Your task to perform on an android device: manage bookmarks in the chrome app Image 0: 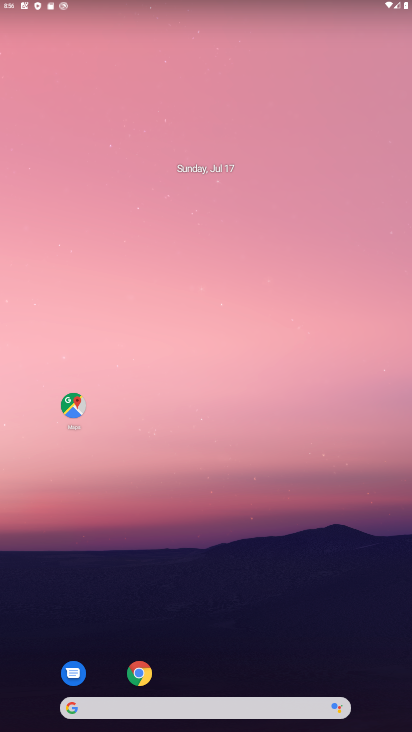
Step 0: drag from (272, 592) to (224, 96)
Your task to perform on an android device: manage bookmarks in the chrome app Image 1: 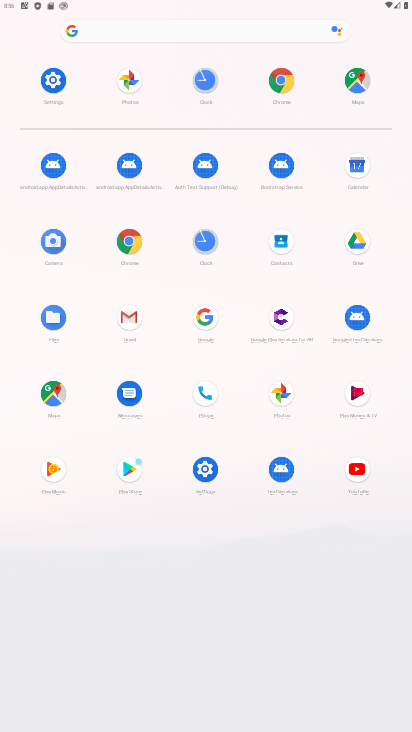
Step 1: click (129, 252)
Your task to perform on an android device: manage bookmarks in the chrome app Image 2: 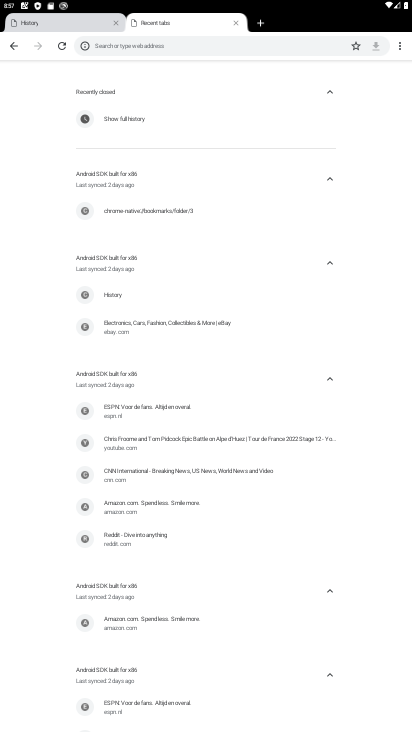
Step 2: drag from (400, 43) to (297, 92)
Your task to perform on an android device: manage bookmarks in the chrome app Image 3: 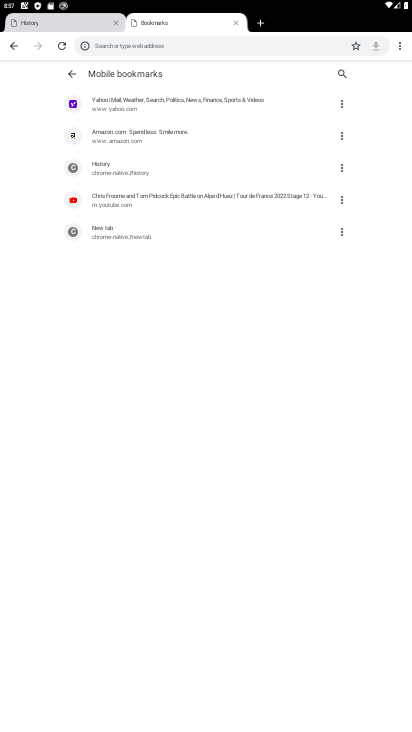
Step 3: click (340, 230)
Your task to perform on an android device: manage bookmarks in the chrome app Image 4: 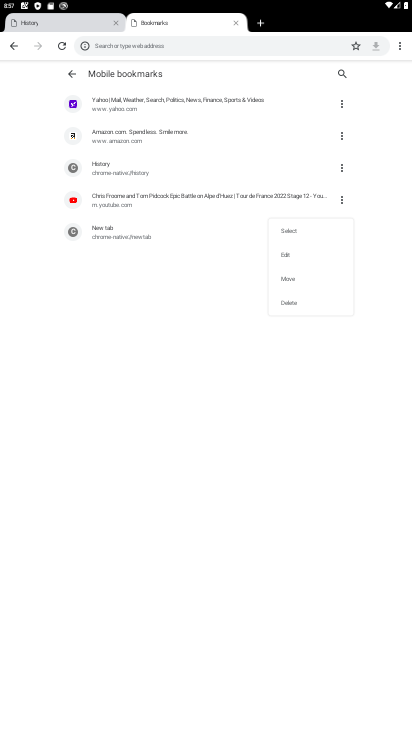
Step 4: click (291, 301)
Your task to perform on an android device: manage bookmarks in the chrome app Image 5: 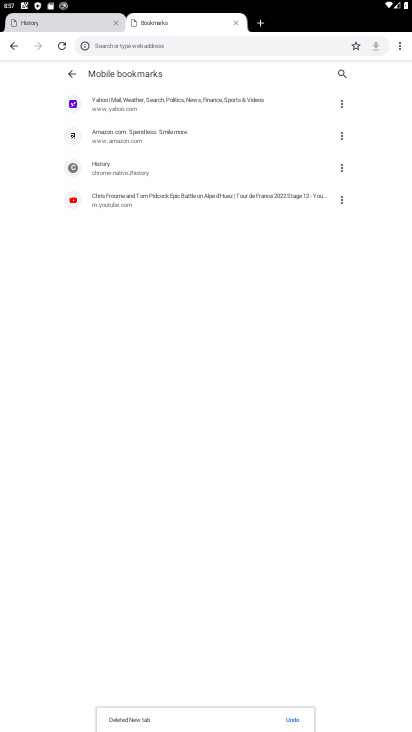
Step 5: task complete